Your task to perform on an android device: turn off notifications in google photos Image 0: 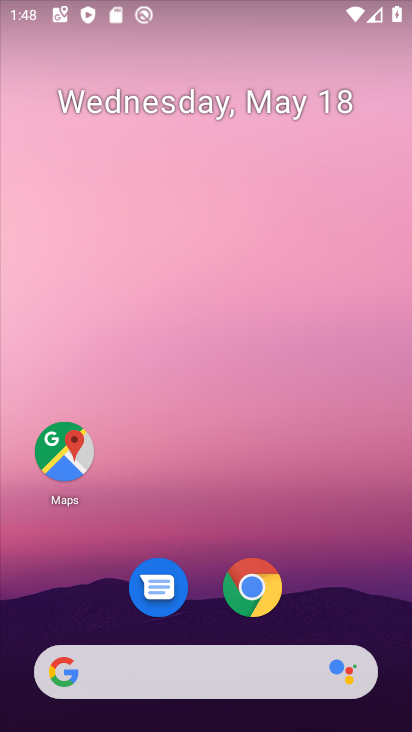
Step 0: drag from (344, 627) to (357, 1)
Your task to perform on an android device: turn off notifications in google photos Image 1: 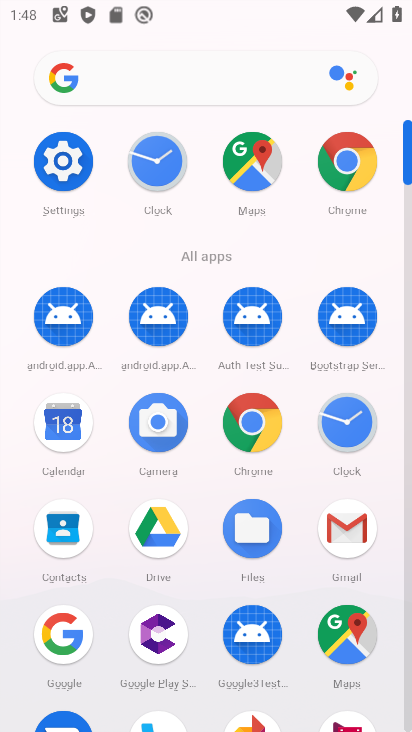
Step 1: click (403, 558)
Your task to perform on an android device: turn off notifications in google photos Image 2: 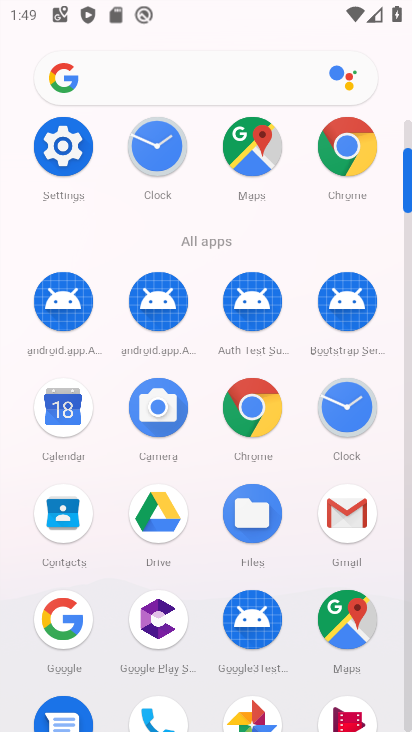
Step 2: drag from (407, 558) to (408, 490)
Your task to perform on an android device: turn off notifications in google photos Image 3: 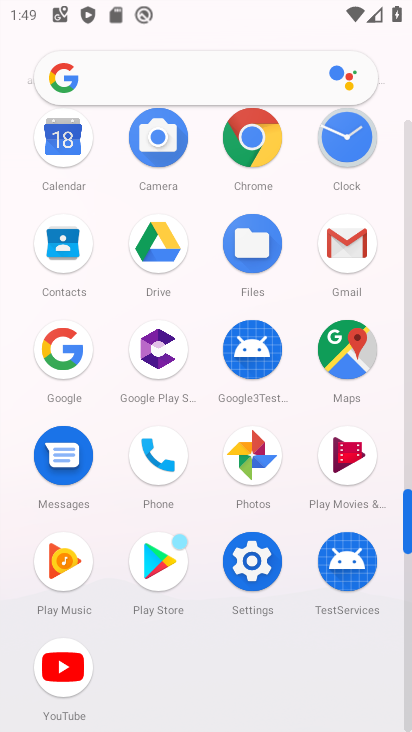
Step 3: click (259, 453)
Your task to perform on an android device: turn off notifications in google photos Image 4: 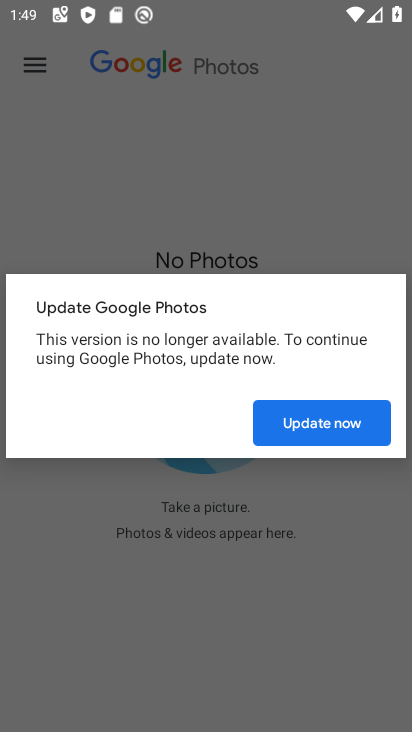
Step 4: click (282, 417)
Your task to perform on an android device: turn off notifications in google photos Image 5: 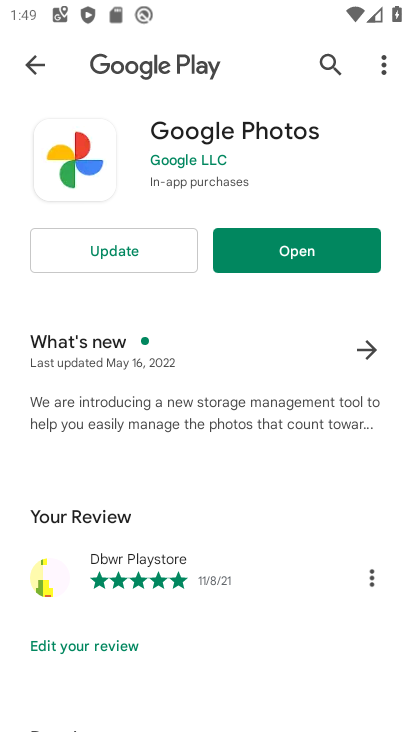
Step 5: click (127, 254)
Your task to perform on an android device: turn off notifications in google photos Image 6: 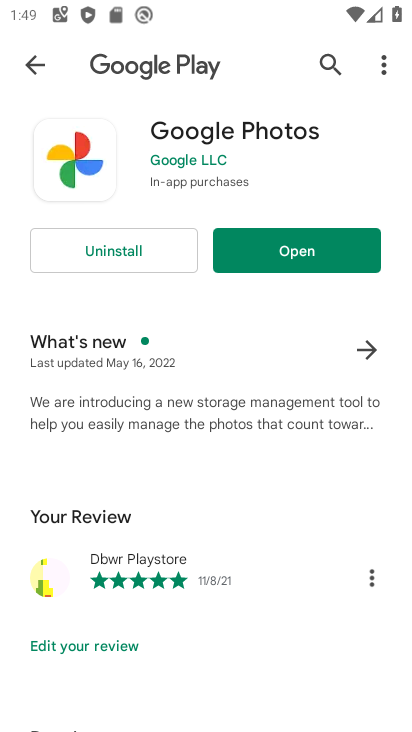
Step 6: click (299, 258)
Your task to perform on an android device: turn off notifications in google photos Image 7: 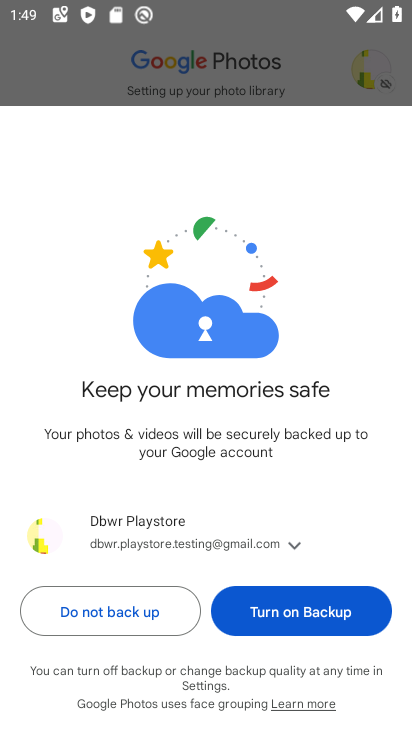
Step 7: click (237, 603)
Your task to perform on an android device: turn off notifications in google photos Image 8: 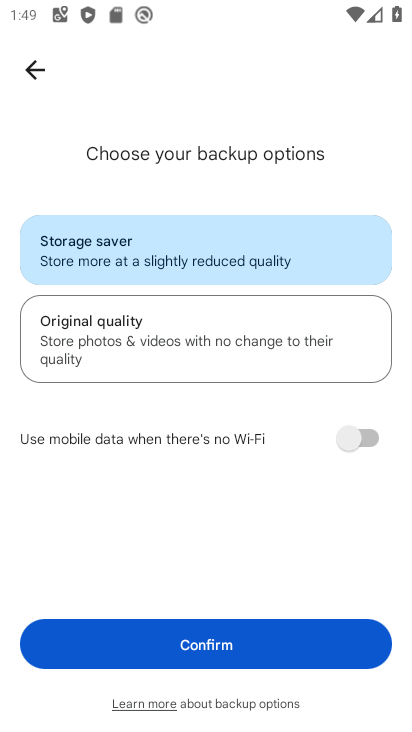
Step 8: click (210, 652)
Your task to perform on an android device: turn off notifications in google photos Image 9: 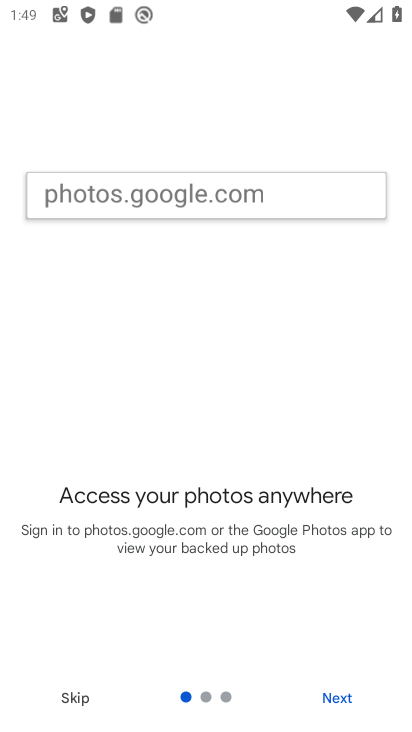
Step 9: click (68, 703)
Your task to perform on an android device: turn off notifications in google photos Image 10: 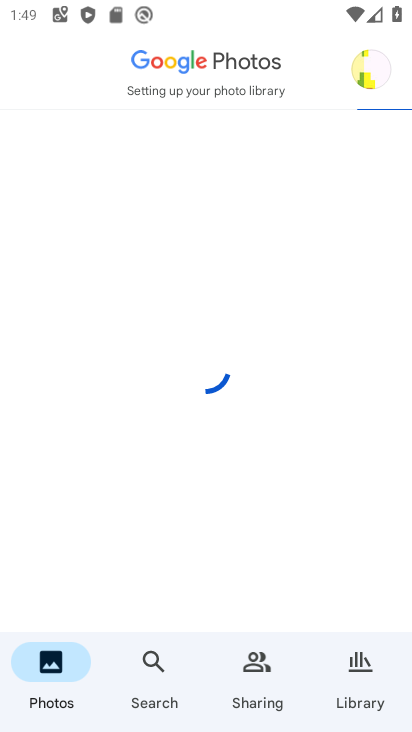
Step 10: click (361, 75)
Your task to perform on an android device: turn off notifications in google photos Image 11: 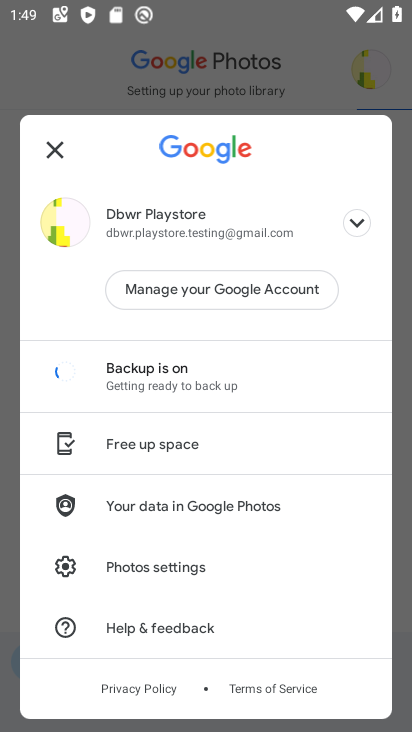
Step 11: click (171, 573)
Your task to perform on an android device: turn off notifications in google photos Image 12: 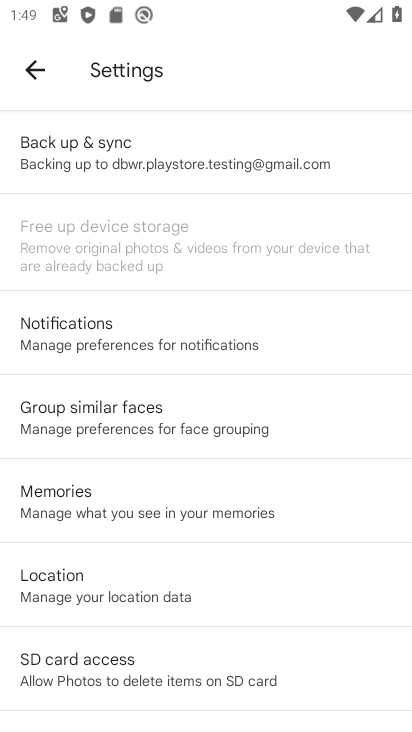
Step 12: click (83, 323)
Your task to perform on an android device: turn off notifications in google photos Image 13: 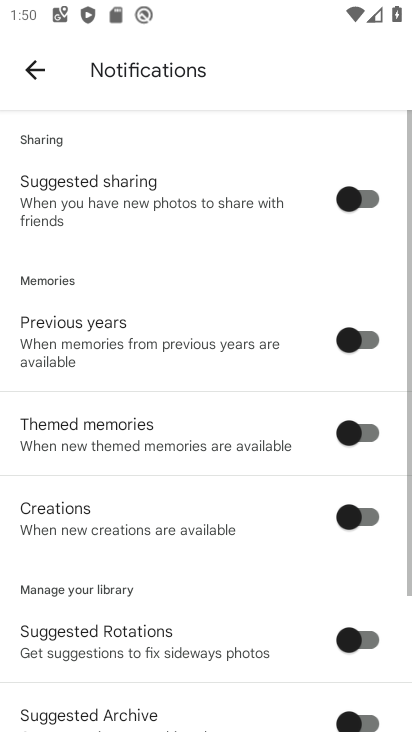
Step 13: drag from (137, 533) to (143, 79)
Your task to perform on an android device: turn off notifications in google photos Image 14: 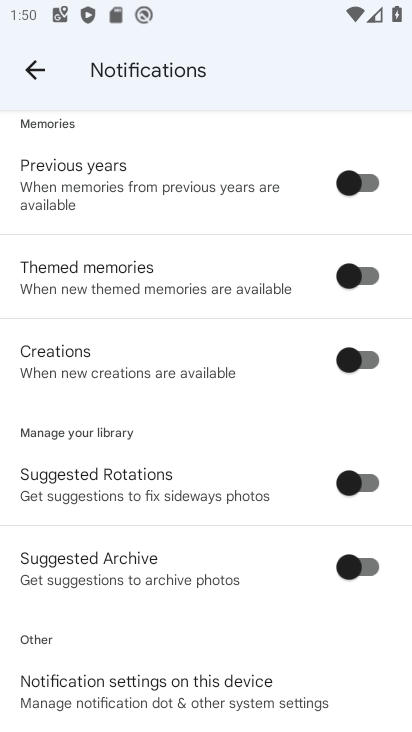
Step 14: drag from (138, 546) to (150, 263)
Your task to perform on an android device: turn off notifications in google photos Image 15: 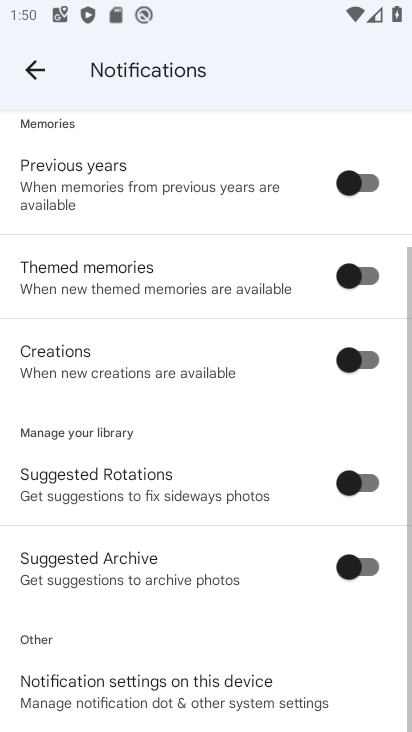
Step 15: click (128, 698)
Your task to perform on an android device: turn off notifications in google photos Image 16: 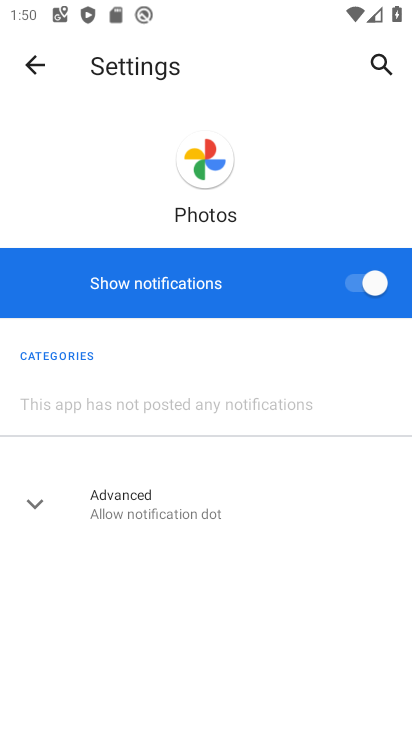
Step 16: click (365, 283)
Your task to perform on an android device: turn off notifications in google photos Image 17: 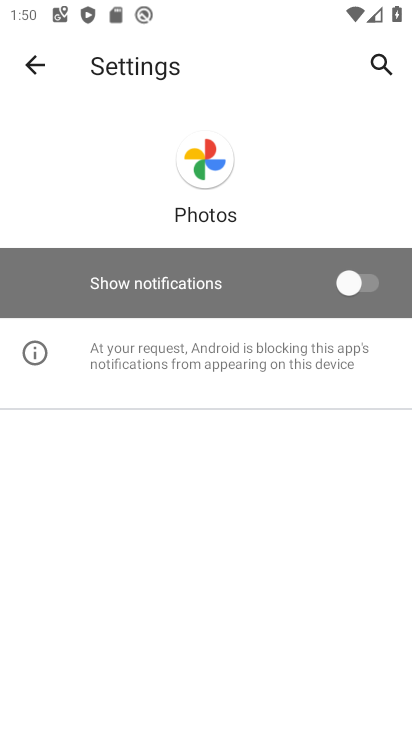
Step 17: task complete